Your task to perform on an android device: Open Google Maps Image 0: 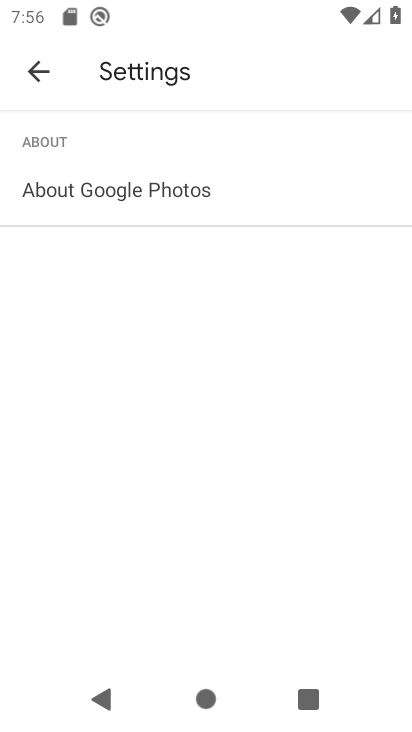
Step 0: press home button
Your task to perform on an android device: Open Google Maps Image 1: 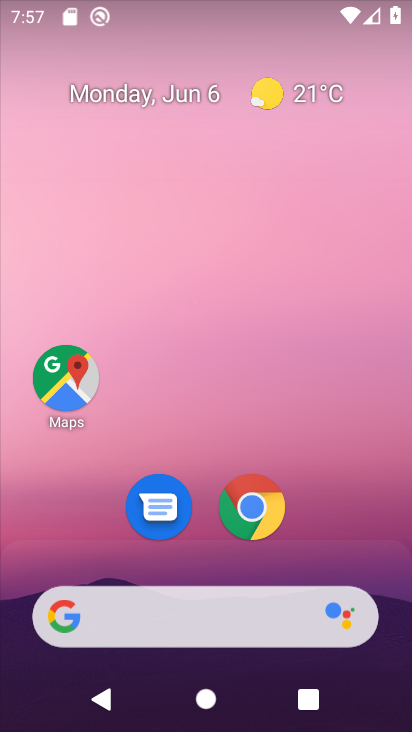
Step 1: click (61, 386)
Your task to perform on an android device: Open Google Maps Image 2: 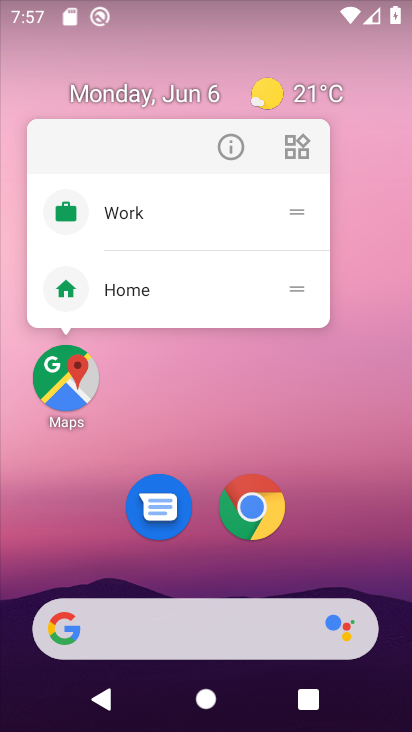
Step 2: click (94, 377)
Your task to perform on an android device: Open Google Maps Image 3: 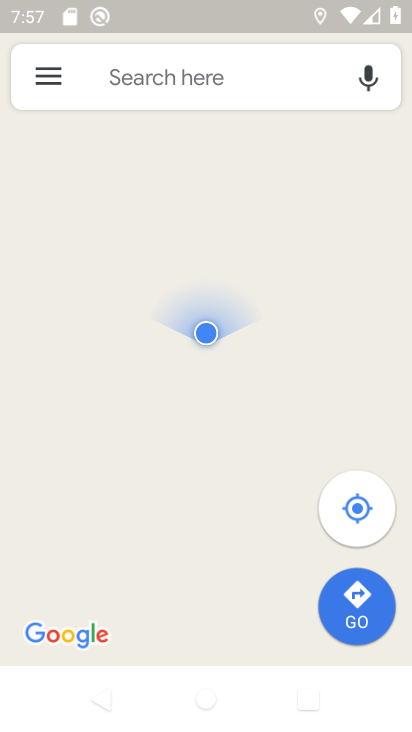
Step 3: task complete